Your task to perform on an android device: turn pop-ups off in chrome Image 0: 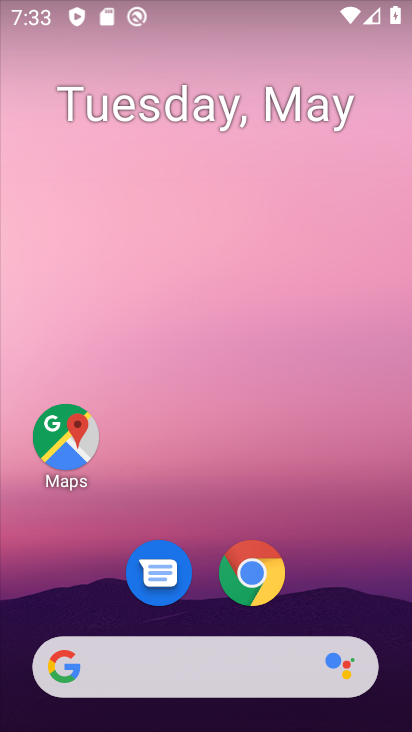
Step 0: click (250, 576)
Your task to perform on an android device: turn pop-ups off in chrome Image 1: 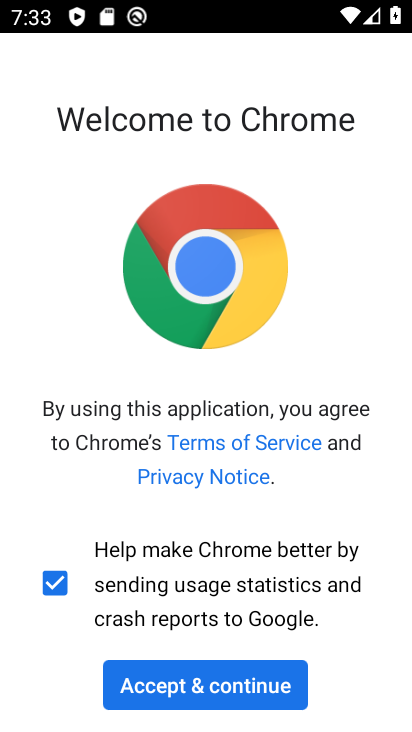
Step 1: click (223, 690)
Your task to perform on an android device: turn pop-ups off in chrome Image 2: 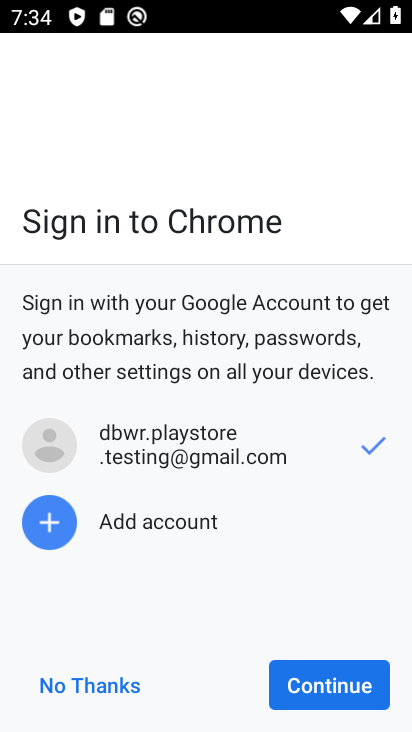
Step 2: click (329, 683)
Your task to perform on an android device: turn pop-ups off in chrome Image 3: 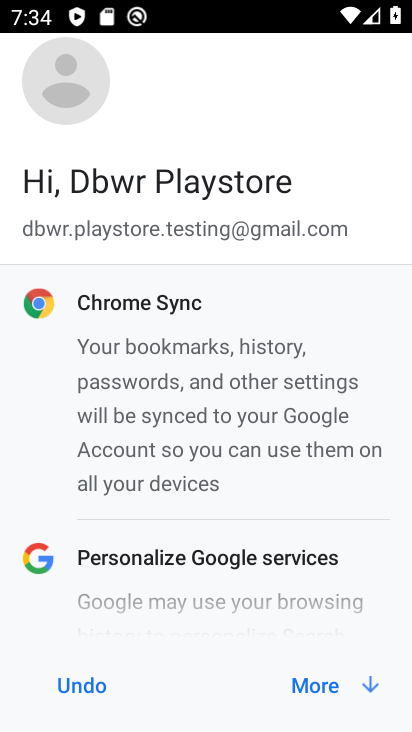
Step 3: click (319, 682)
Your task to perform on an android device: turn pop-ups off in chrome Image 4: 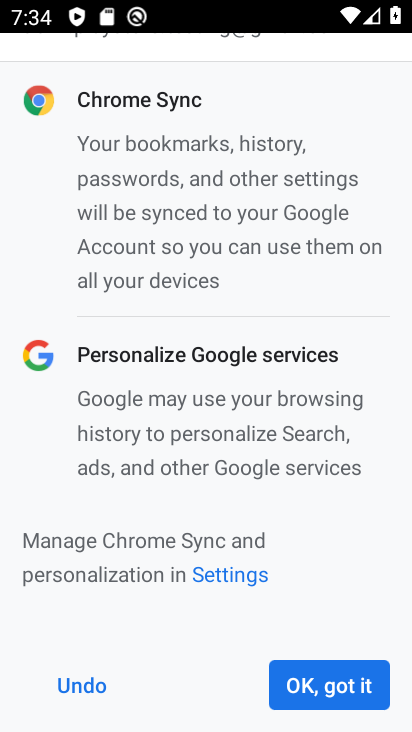
Step 4: click (318, 679)
Your task to perform on an android device: turn pop-ups off in chrome Image 5: 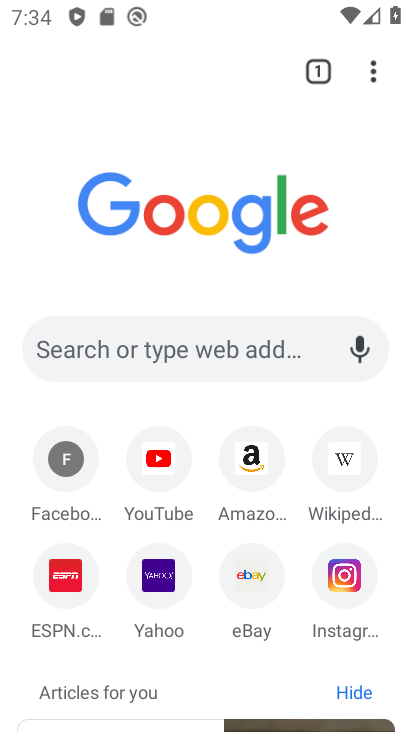
Step 5: click (374, 64)
Your task to perform on an android device: turn pop-ups off in chrome Image 6: 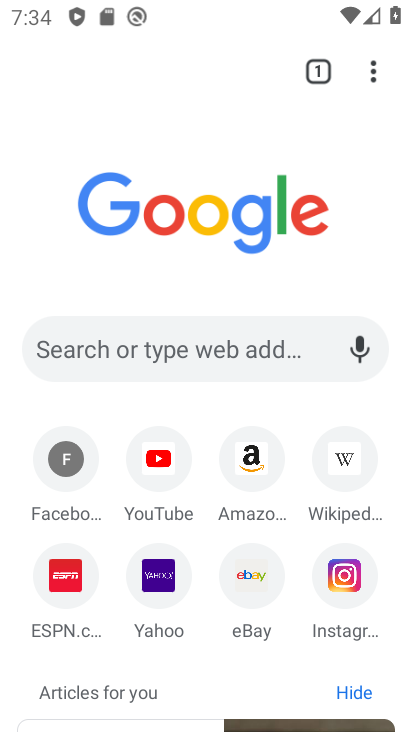
Step 6: click (375, 69)
Your task to perform on an android device: turn pop-ups off in chrome Image 7: 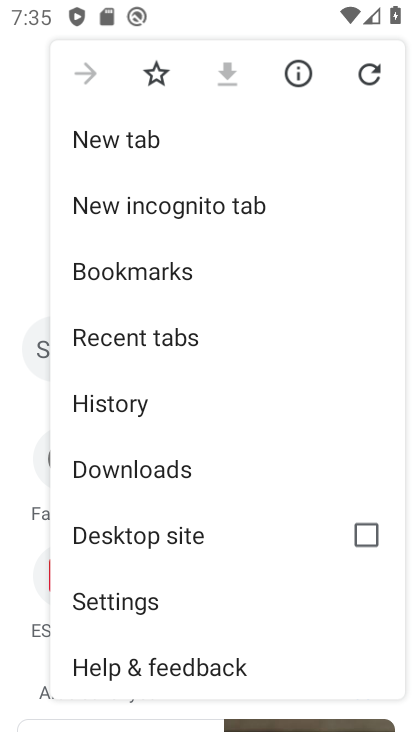
Step 7: click (131, 592)
Your task to perform on an android device: turn pop-ups off in chrome Image 8: 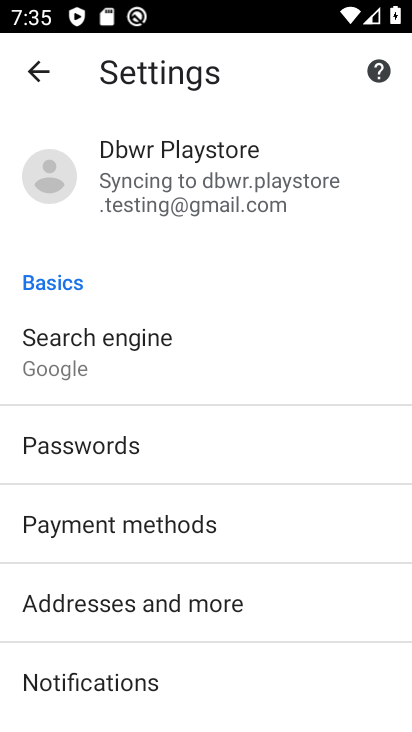
Step 8: drag from (177, 629) to (192, 251)
Your task to perform on an android device: turn pop-ups off in chrome Image 9: 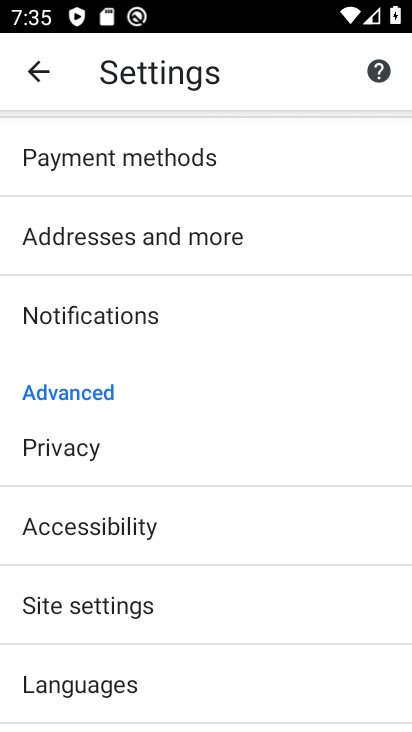
Step 9: click (107, 612)
Your task to perform on an android device: turn pop-ups off in chrome Image 10: 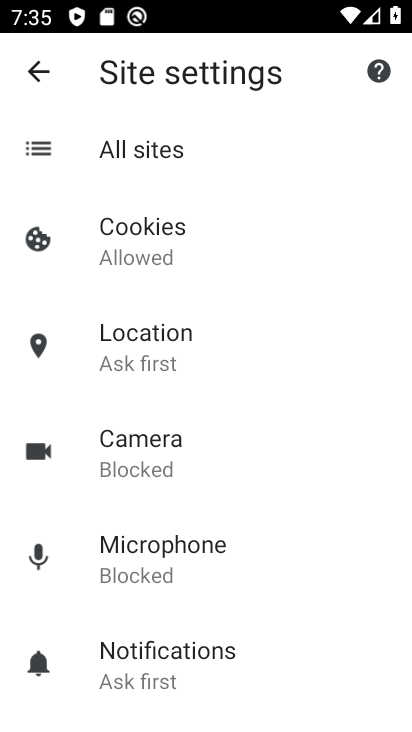
Step 10: drag from (148, 612) to (219, 204)
Your task to perform on an android device: turn pop-ups off in chrome Image 11: 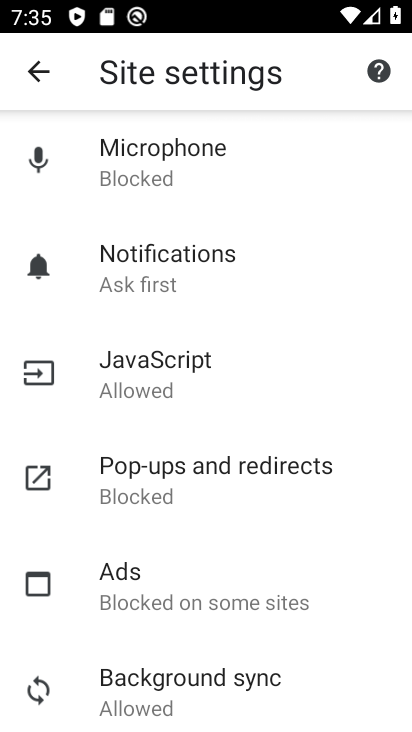
Step 11: click (158, 462)
Your task to perform on an android device: turn pop-ups off in chrome Image 12: 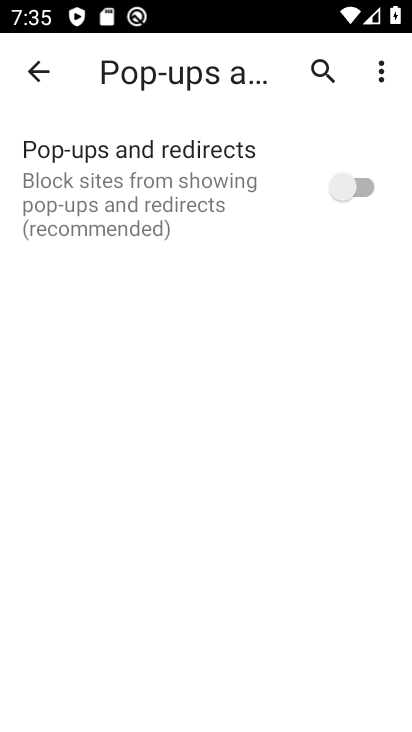
Step 12: task complete